Your task to perform on an android device: Go to Maps Image 0: 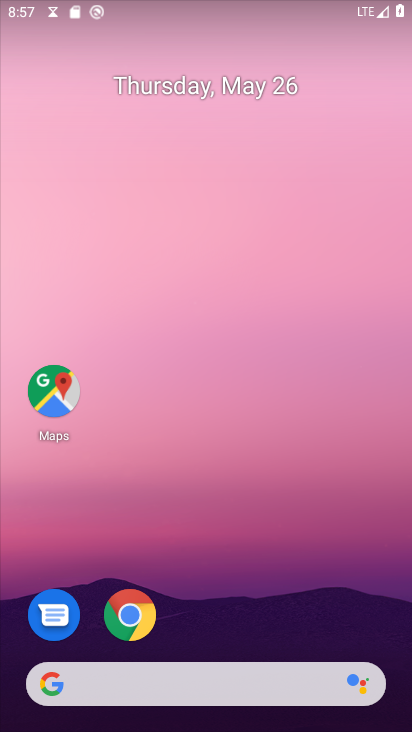
Step 0: click (53, 379)
Your task to perform on an android device: Go to Maps Image 1: 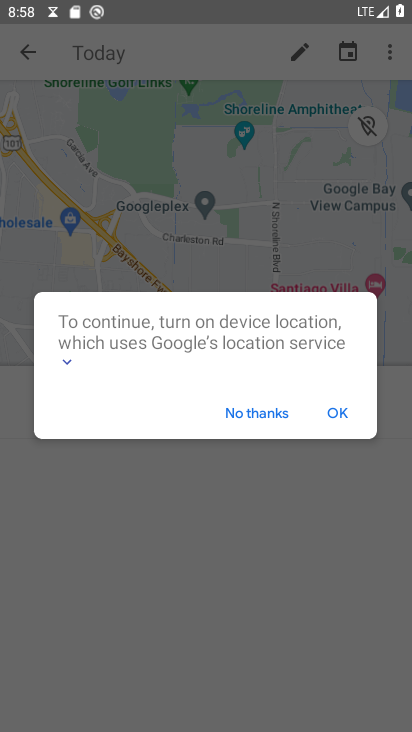
Step 1: click (248, 406)
Your task to perform on an android device: Go to Maps Image 2: 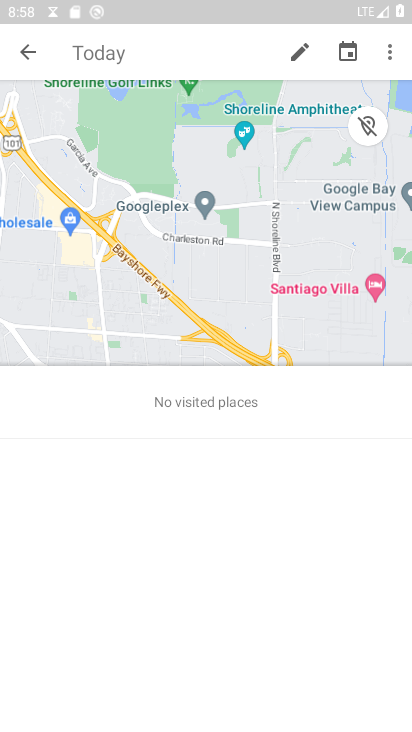
Step 2: click (16, 57)
Your task to perform on an android device: Go to Maps Image 3: 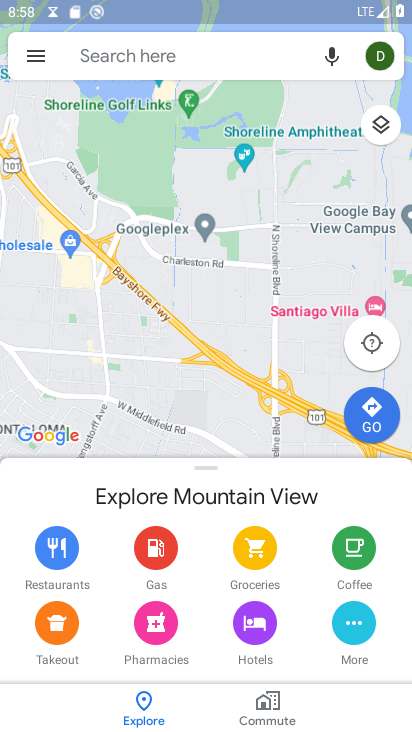
Step 3: task complete